Your task to perform on an android device: change your default location settings in chrome Image 0: 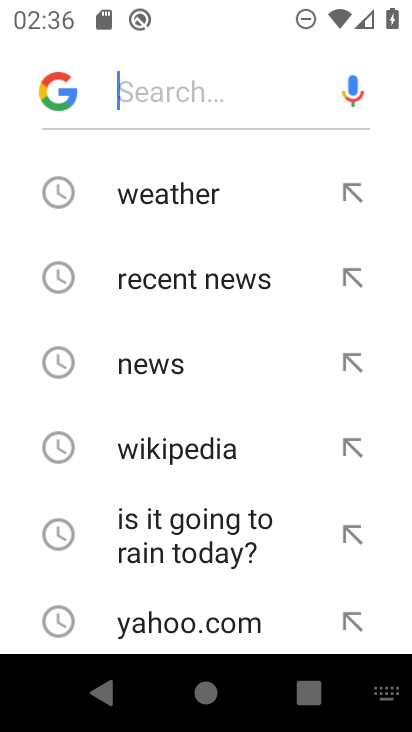
Step 0: press back button
Your task to perform on an android device: change your default location settings in chrome Image 1: 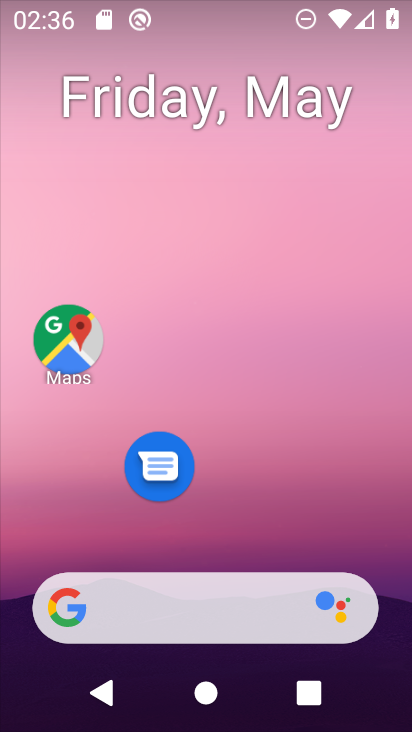
Step 1: drag from (330, 536) to (311, 181)
Your task to perform on an android device: change your default location settings in chrome Image 2: 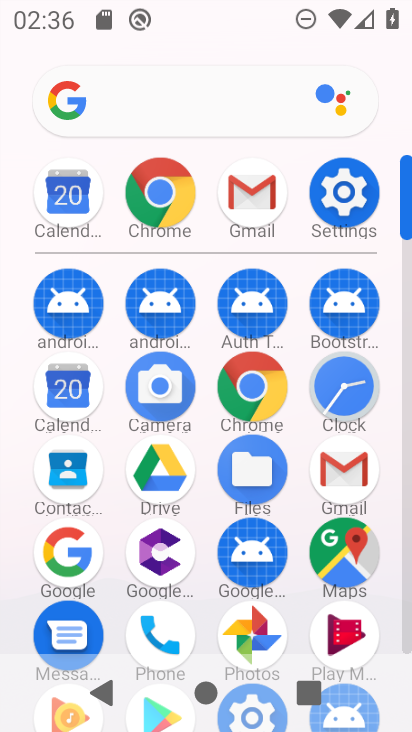
Step 2: click (155, 236)
Your task to perform on an android device: change your default location settings in chrome Image 3: 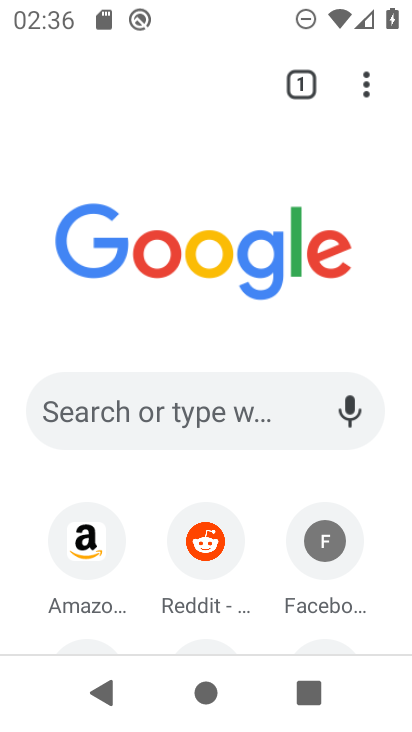
Step 3: click (358, 77)
Your task to perform on an android device: change your default location settings in chrome Image 4: 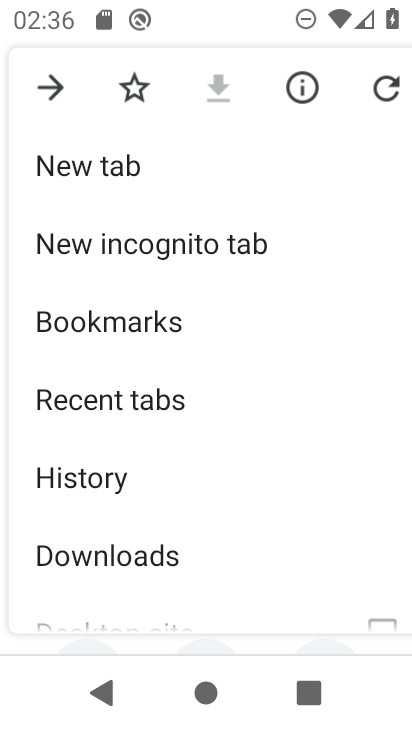
Step 4: drag from (170, 600) to (169, 216)
Your task to perform on an android device: change your default location settings in chrome Image 5: 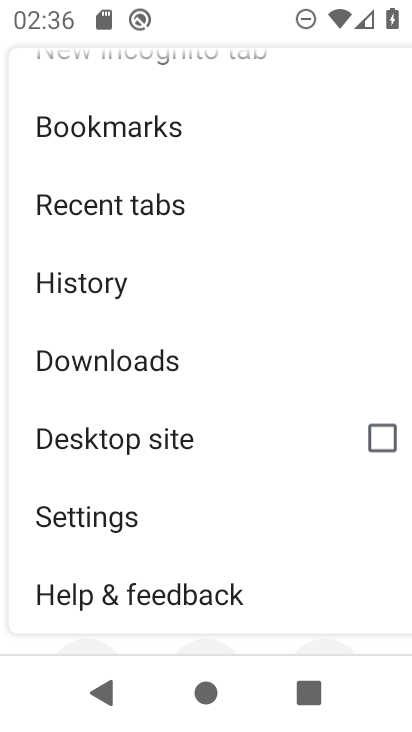
Step 5: click (149, 496)
Your task to perform on an android device: change your default location settings in chrome Image 6: 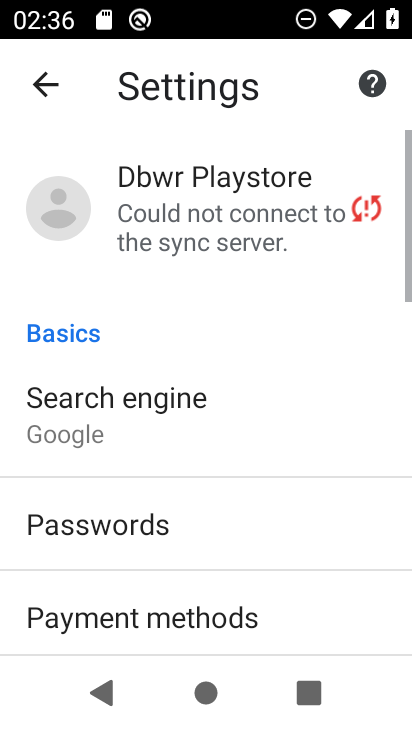
Step 6: drag from (198, 550) to (199, 238)
Your task to perform on an android device: change your default location settings in chrome Image 7: 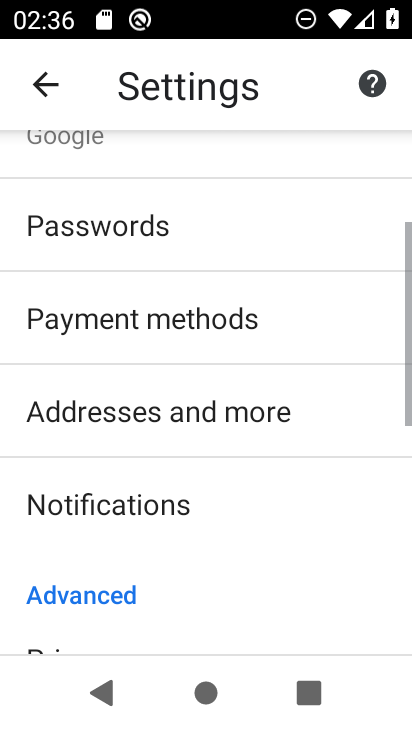
Step 7: drag from (230, 525) to (245, 289)
Your task to perform on an android device: change your default location settings in chrome Image 8: 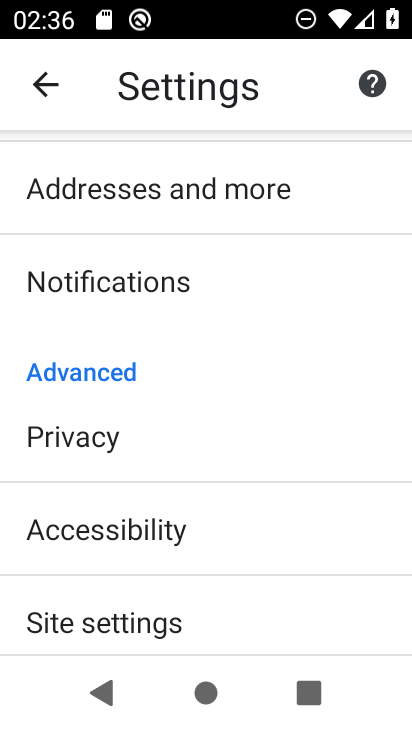
Step 8: drag from (214, 579) to (214, 442)
Your task to perform on an android device: change your default location settings in chrome Image 9: 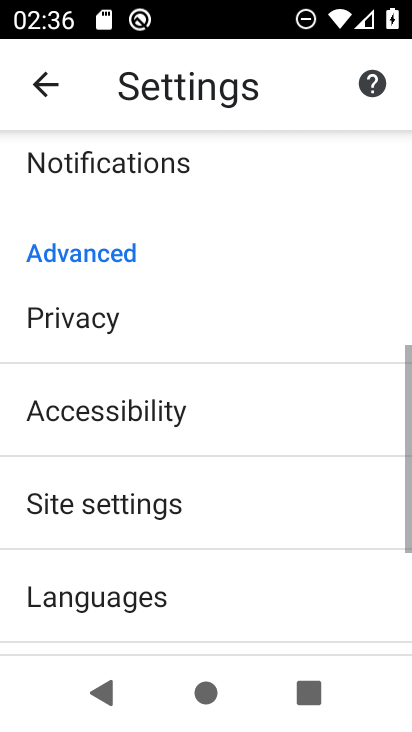
Step 9: click (214, 442)
Your task to perform on an android device: change your default location settings in chrome Image 10: 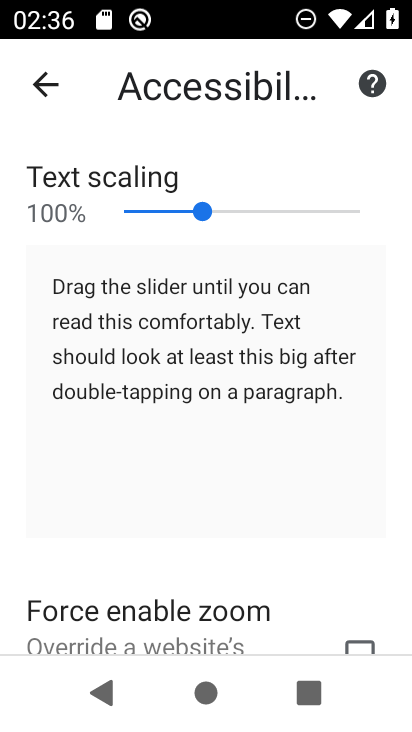
Step 10: click (65, 121)
Your task to perform on an android device: change your default location settings in chrome Image 11: 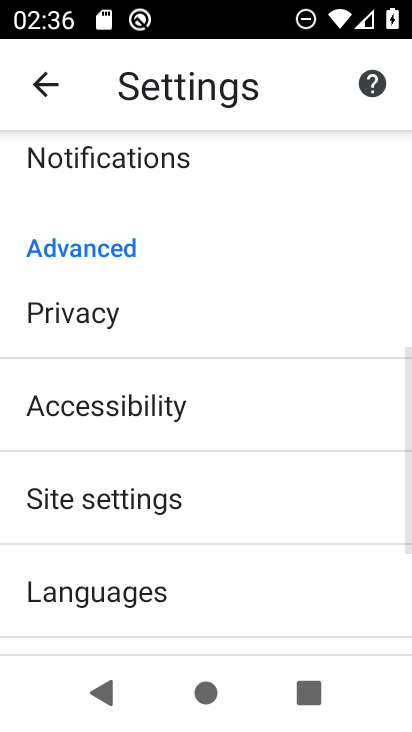
Step 11: click (135, 479)
Your task to perform on an android device: change your default location settings in chrome Image 12: 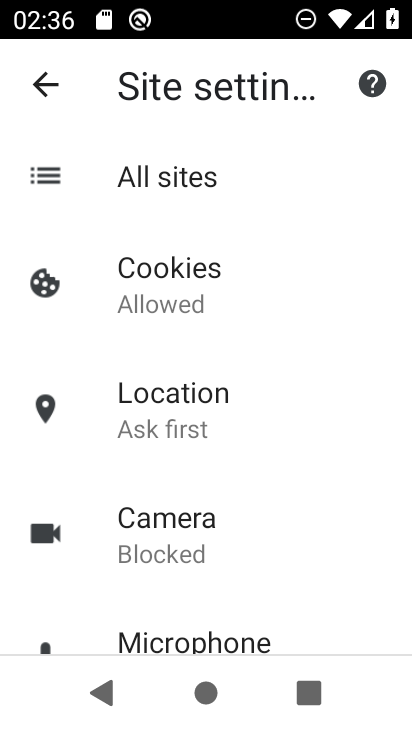
Step 12: task complete